Your task to perform on an android device: Search for usb-c on newegg, select the first entry, and add it to the cart. Image 0: 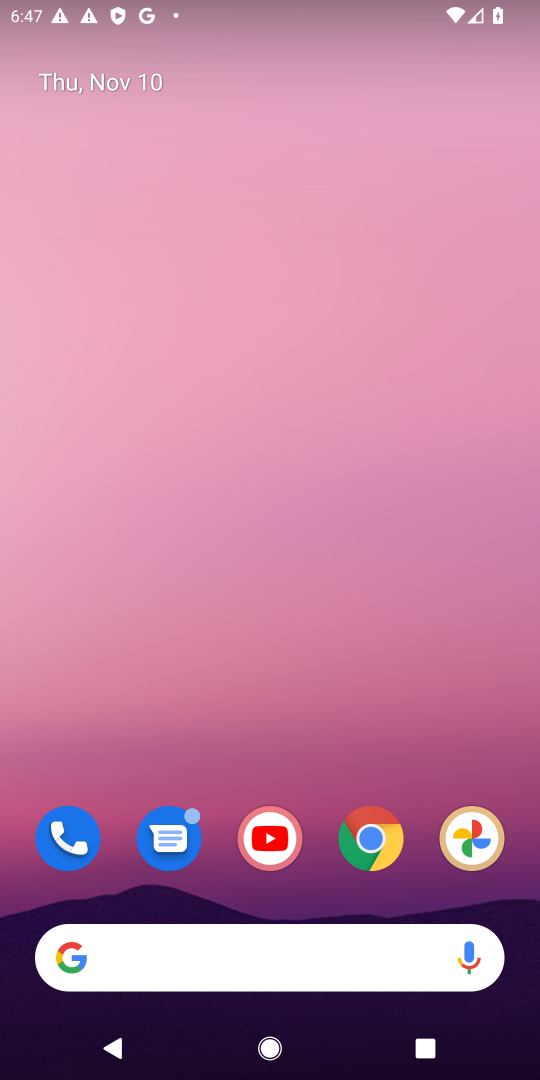
Step 0: drag from (332, 898) to (497, 145)
Your task to perform on an android device: Search for usb-c on newegg, select the first entry, and add it to the cart. Image 1: 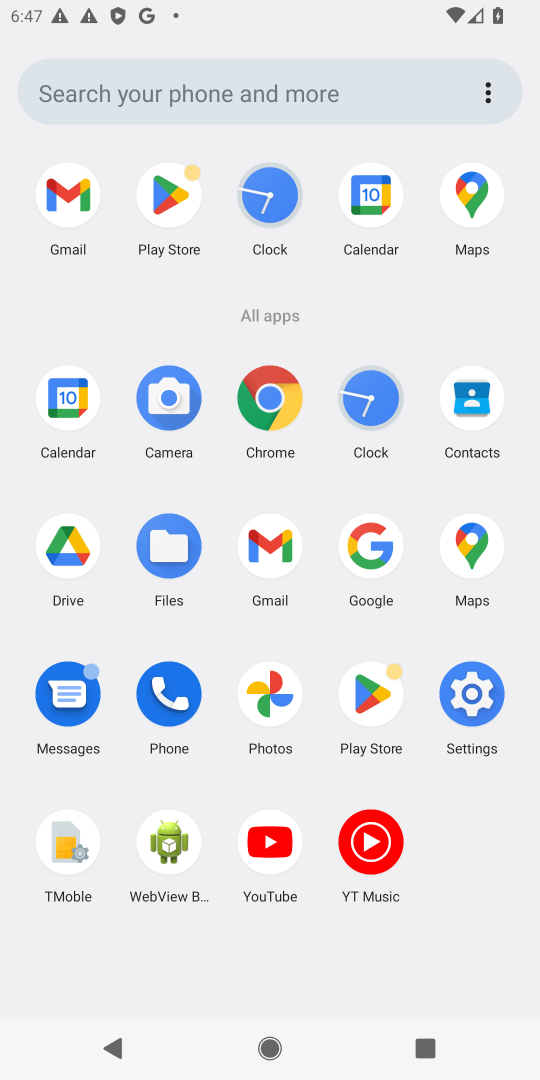
Step 1: click (266, 403)
Your task to perform on an android device: Search for usb-c on newegg, select the first entry, and add it to the cart. Image 2: 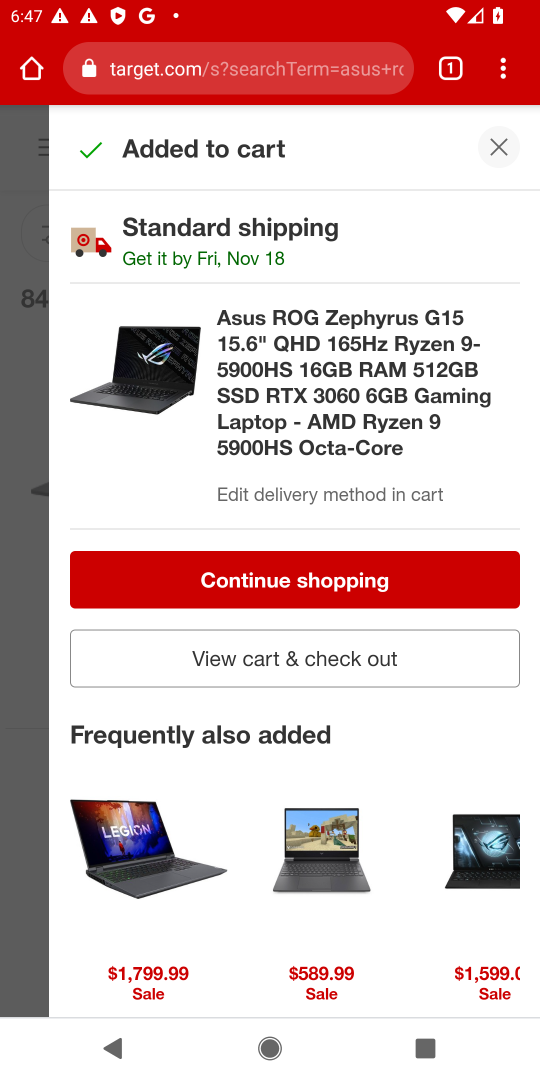
Step 2: click (309, 67)
Your task to perform on an android device: Search for usb-c on newegg, select the first entry, and add it to the cart. Image 3: 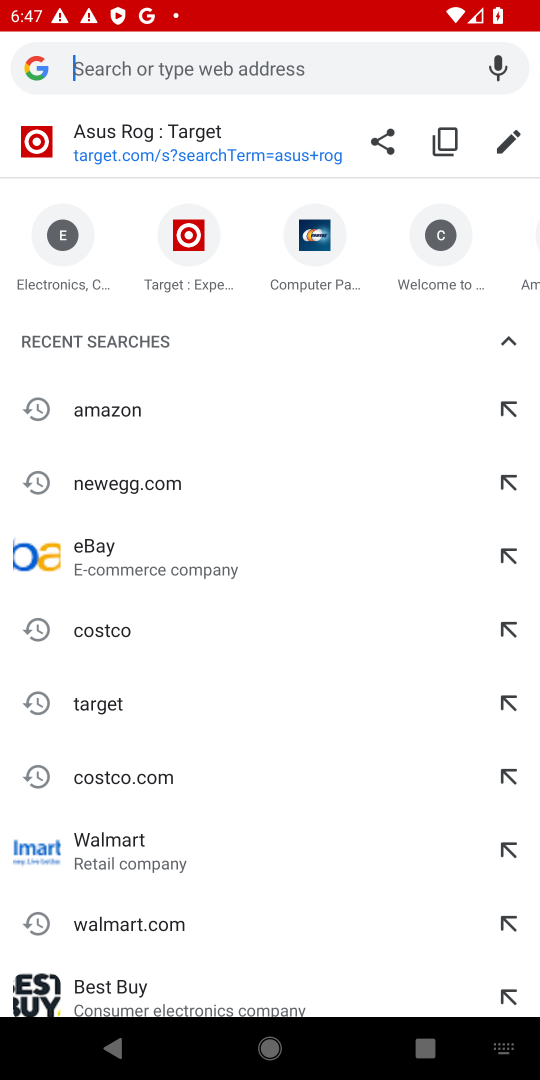
Step 3: type "newegg.com"
Your task to perform on an android device: Search for usb-c on newegg, select the first entry, and add it to the cart. Image 4: 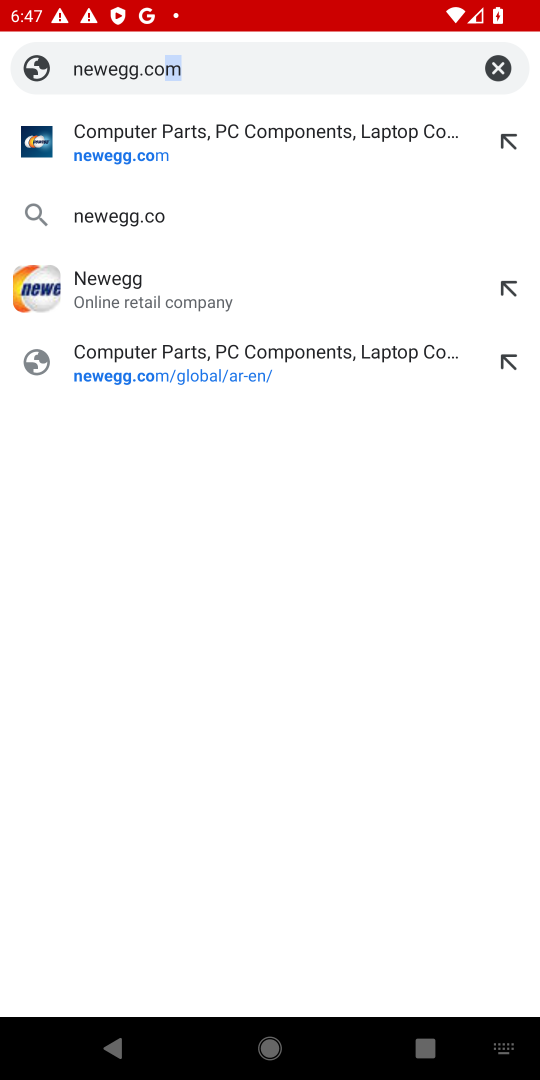
Step 4: press enter
Your task to perform on an android device: Search for usb-c on newegg, select the first entry, and add it to the cart. Image 5: 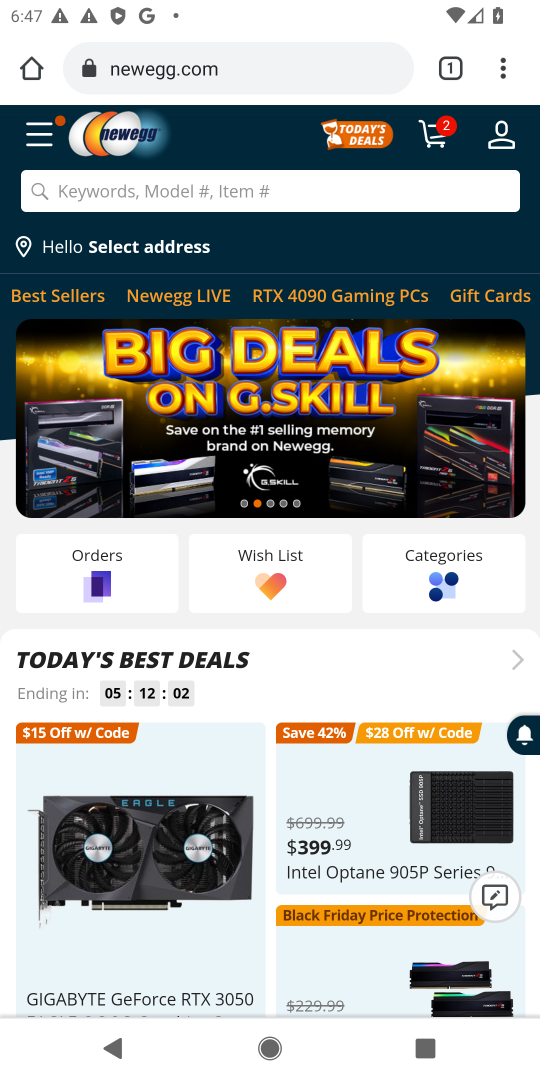
Step 5: click (402, 201)
Your task to perform on an android device: Search for usb-c on newegg, select the first entry, and add it to the cart. Image 6: 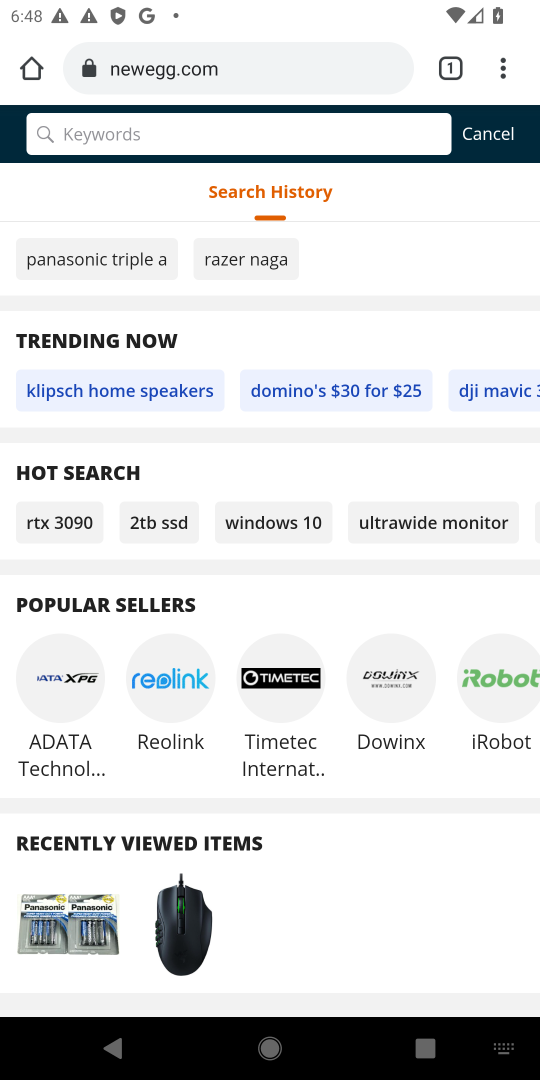
Step 6: type "usb-c"
Your task to perform on an android device: Search for usb-c on newegg, select the first entry, and add it to the cart. Image 7: 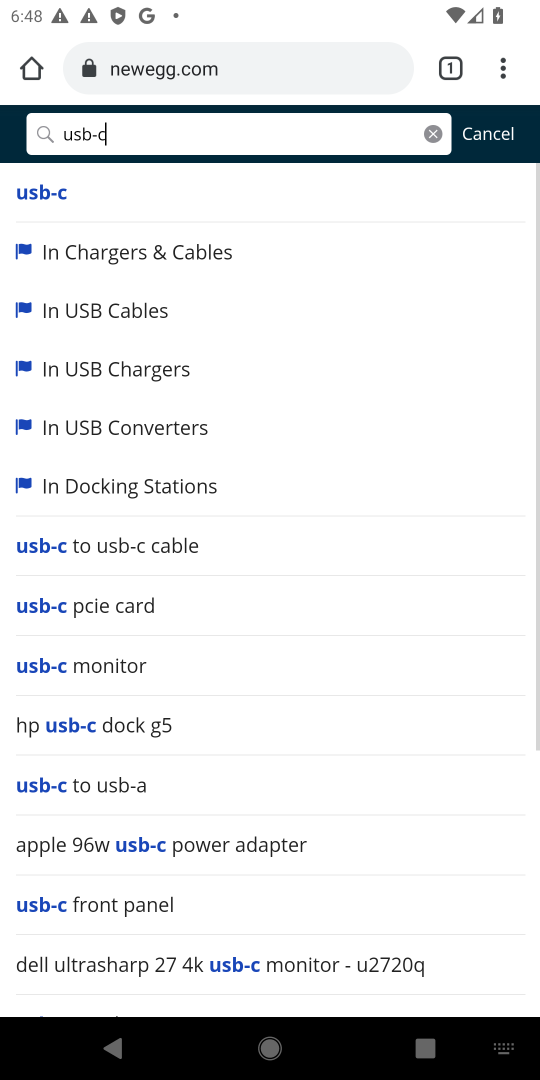
Step 7: press enter
Your task to perform on an android device: Search for usb-c on newegg, select the first entry, and add it to the cart. Image 8: 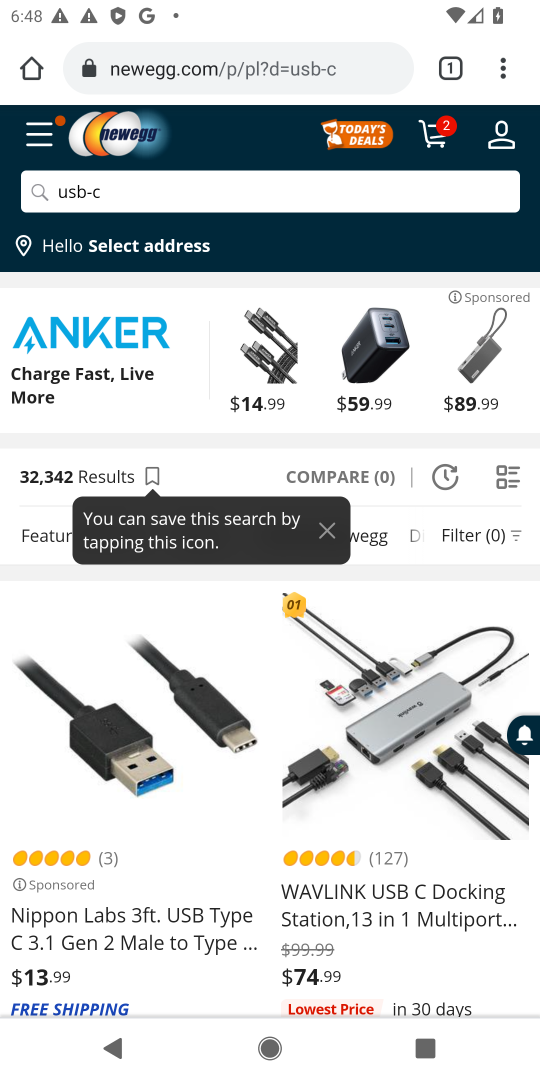
Step 8: drag from (265, 880) to (312, 478)
Your task to perform on an android device: Search for usb-c on newegg, select the first entry, and add it to the cart. Image 9: 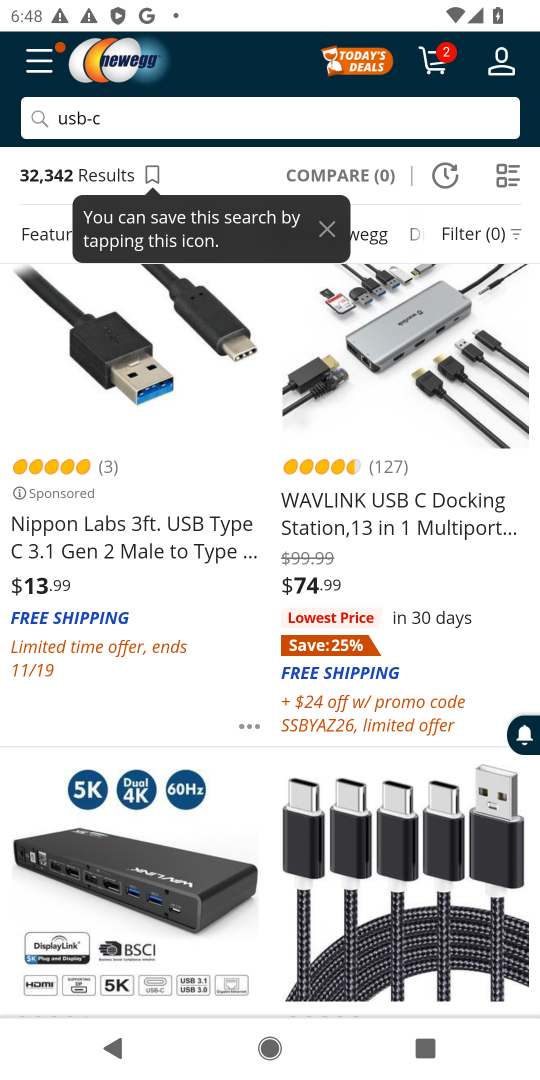
Step 9: click (436, 426)
Your task to perform on an android device: Search for usb-c on newegg, select the first entry, and add it to the cart. Image 10: 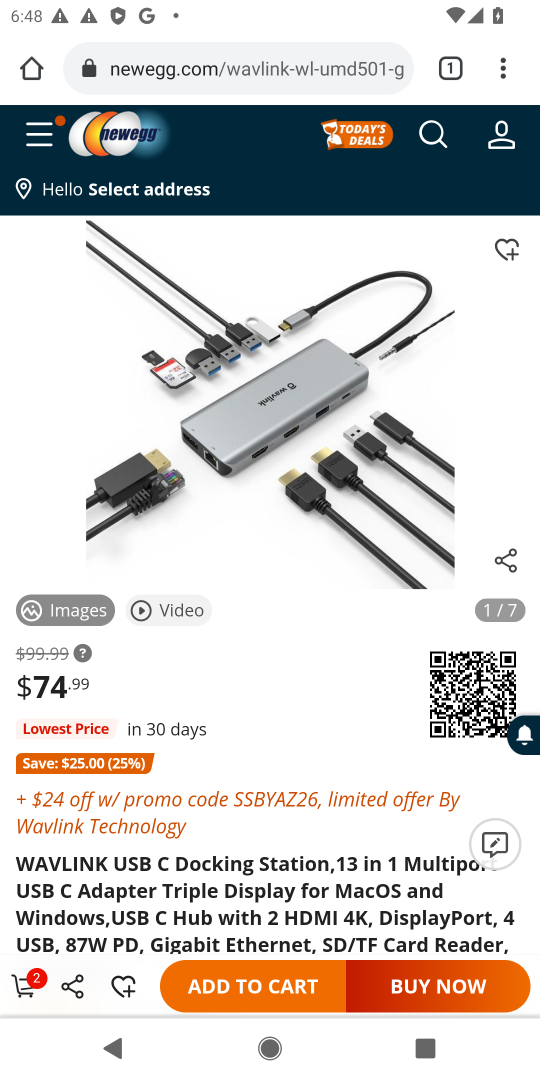
Step 10: click (281, 982)
Your task to perform on an android device: Search for usb-c on newegg, select the first entry, and add it to the cart. Image 11: 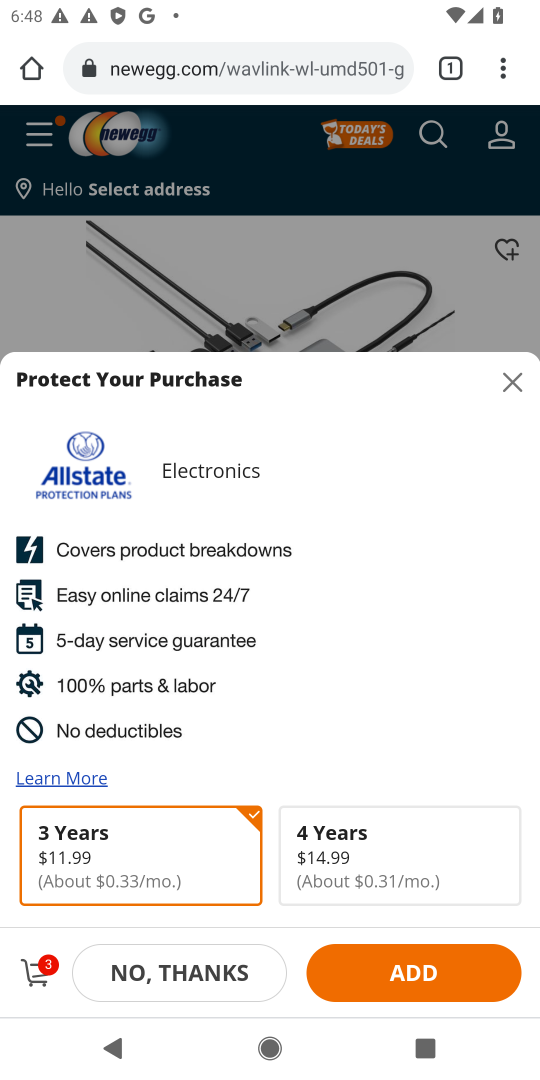
Step 11: task complete